Your task to perform on an android device: change the clock display to analog Image 0: 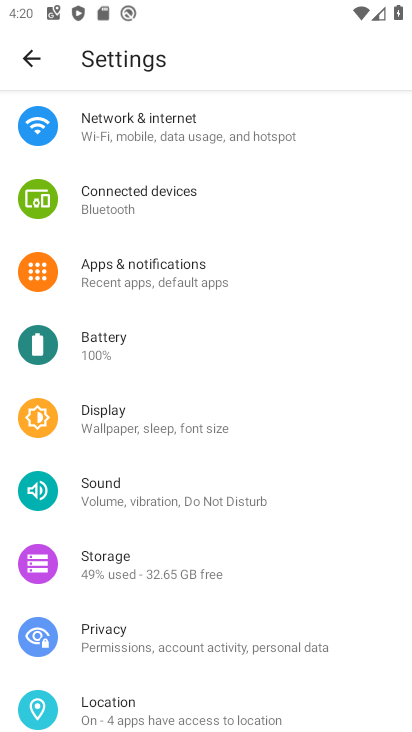
Step 0: click (186, 428)
Your task to perform on an android device: change the clock display to analog Image 1: 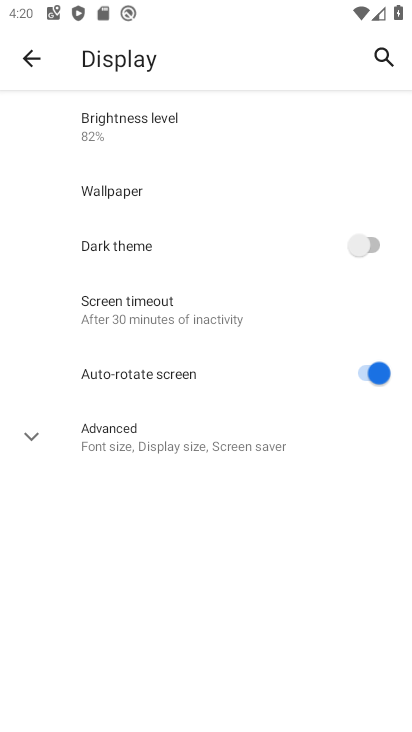
Step 1: click (202, 449)
Your task to perform on an android device: change the clock display to analog Image 2: 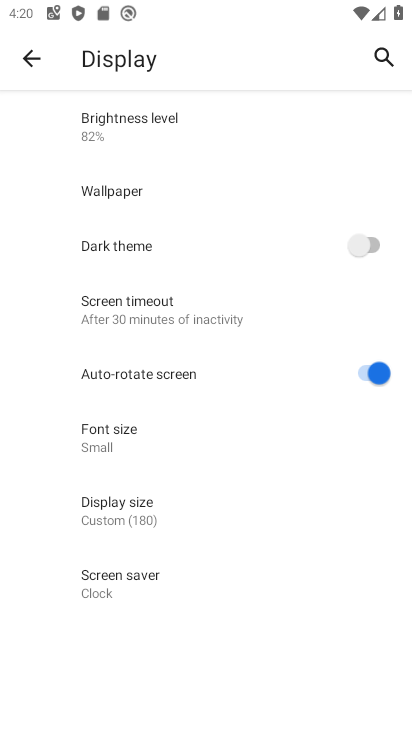
Step 2: click (149, 589)
Your task to perform on an android device: change the clock display to analog Image 3: 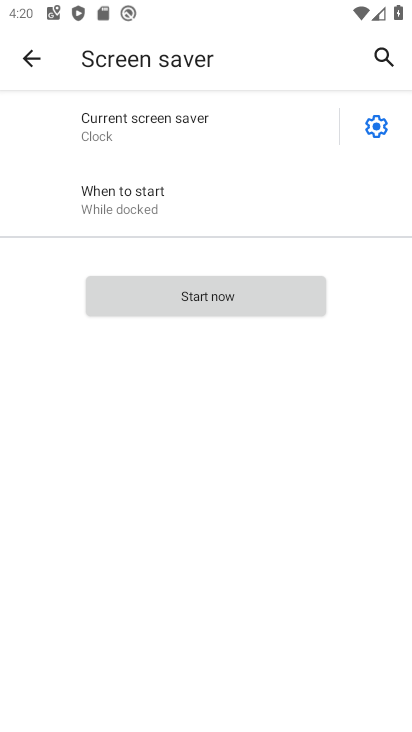
Step 3: click (377, 124)
Your task to perform on an android device: change the clock display to analog Image 4: 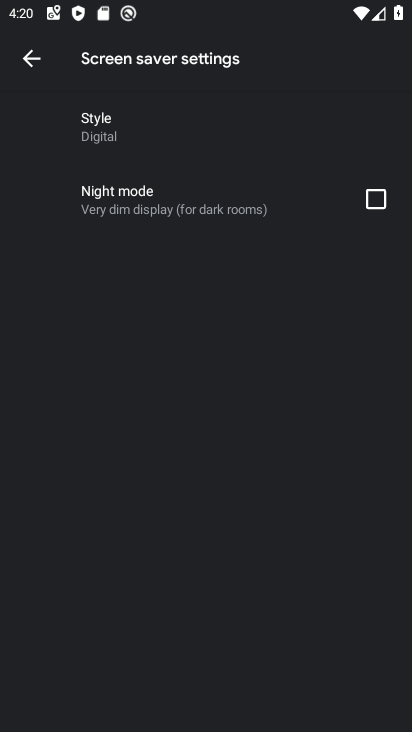
Step 4: click (134, 135)
Your task to perform on an android device: change the clock display to analog Image 5: 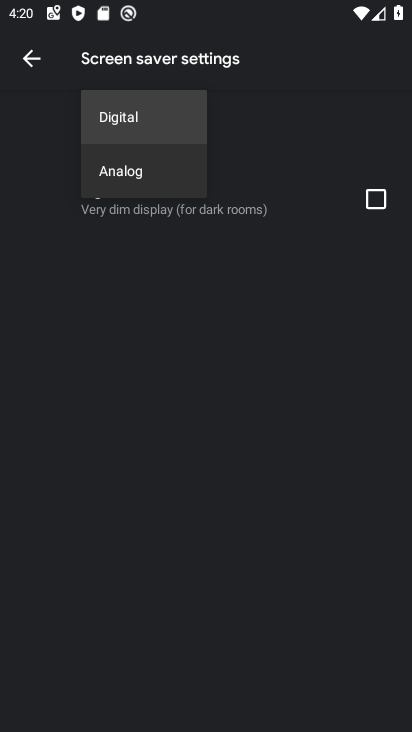
Step 5: click (162, 173)
Your task to perform on an android device: change the clock display to analog Image 6: 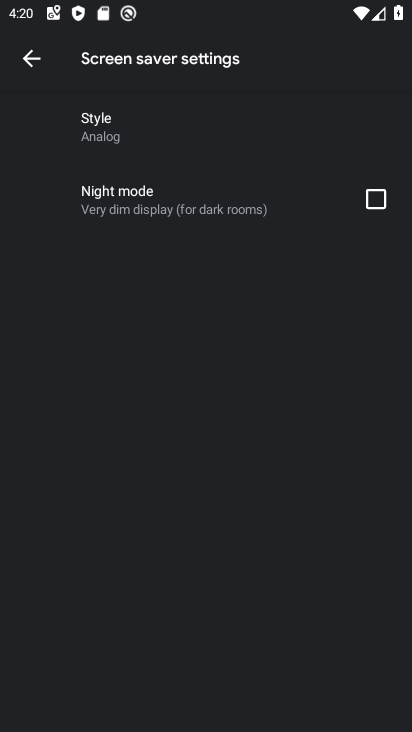
Step 6: task complete